Your task to perform on an android device: allow notifications from all sites in the chrome app Image 0: 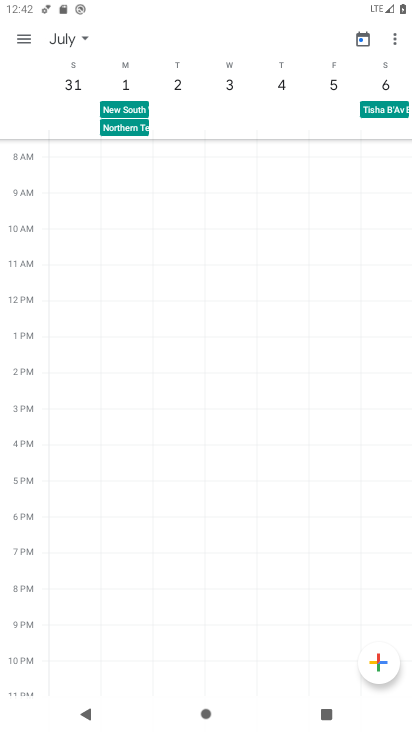
Step 0: press home button
Your task to perform on an android device: allow notifications from all sites in the chrome app Image 1: 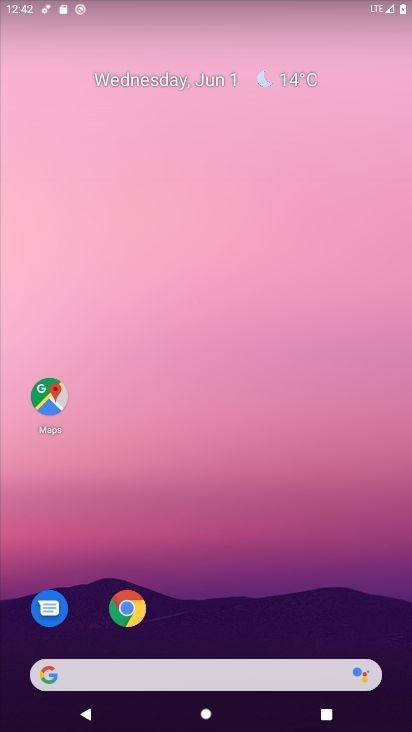
Step 1: click (134, 591)
Your task to perform on an android device: allow notifications from all sites in the chrome app Image 2: 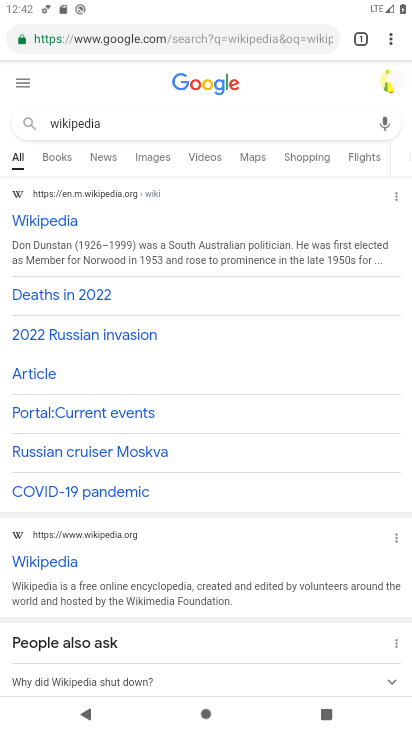
Step 2: click (396, 38)
Your task to perform on an android device: allow notifications from all sites in the chrome app Image 3: 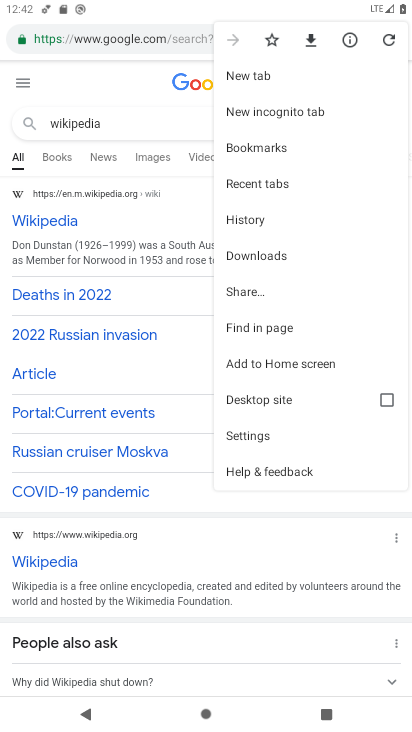
Step 3: click (267, 438)
Your task to perform on an android device: allow notifications from all sites in the chrome app Image 4: 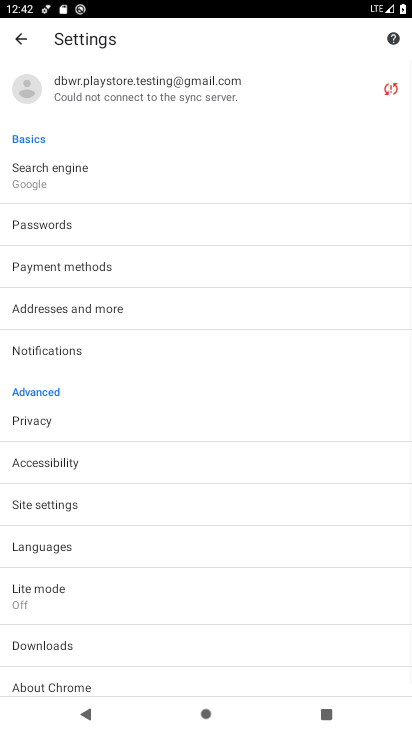
Step 4: click (64, 347)
Your task to perform on an android device: allow notifications from all sites in the chrome app Image 5: 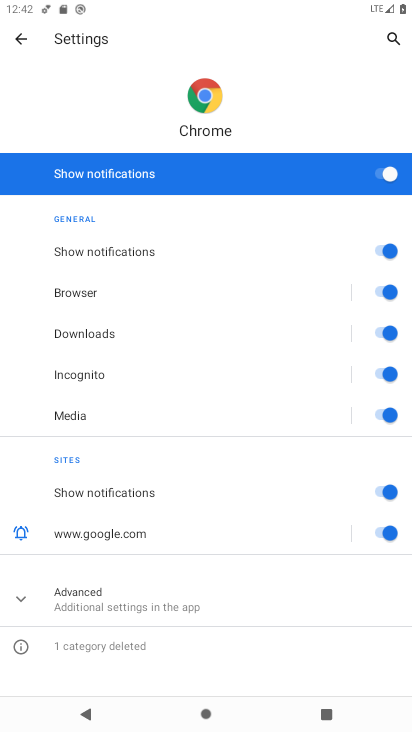
Step 5: task complete